Your task to perform on an android device: Open calendar and show me the first week of next month Image 0: 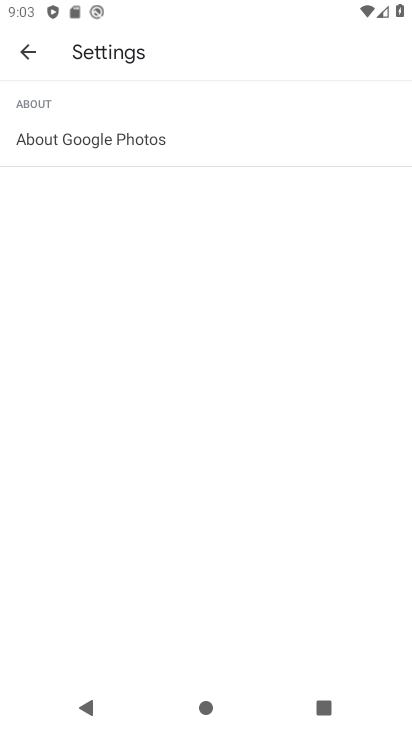
Step 0: press home button
Your task to perform on an android device: Open calendar and show me the first week of next month Image 1: 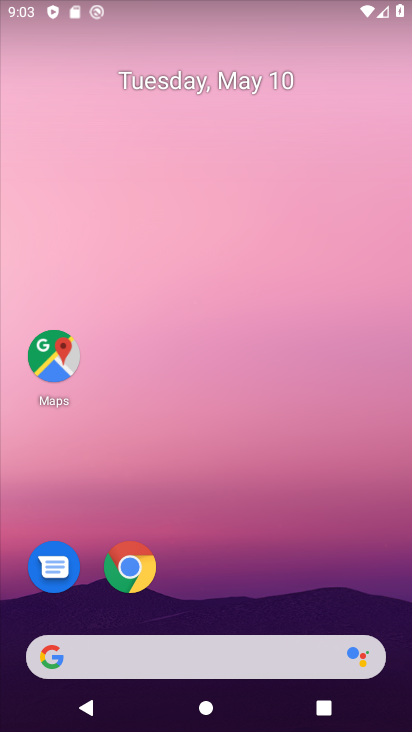
Step 1: drag from (37, 581) to (193, 193)
Your task to perform on an android device: Open calendar and show me the first week of next month Image 2: 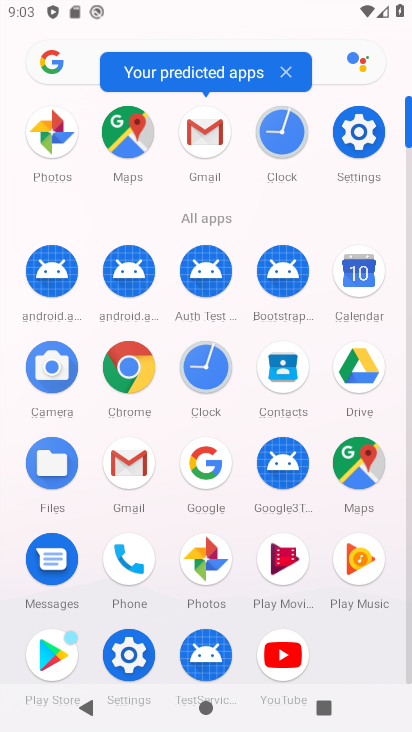
Step 2: click (358, 263)
Your task to perform on an android device: Open calendar and show me the first week of next month Image 3: 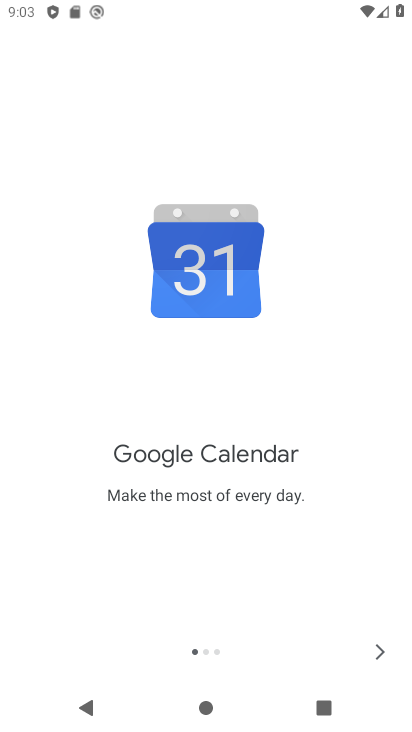
Step 3: click (382, 645)
Your task to perform on an android device: Open calendar and show me the first week of next month Image 4: 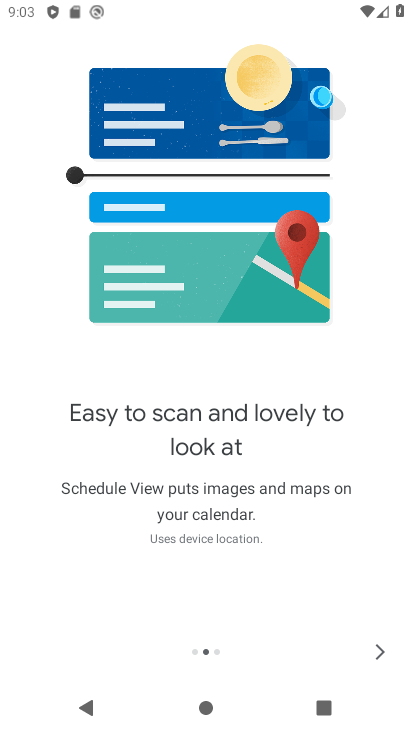
Step 4: click (382, 645)
Your task to perform on an android device: Open calendar and show me the first week of next month Image 5: 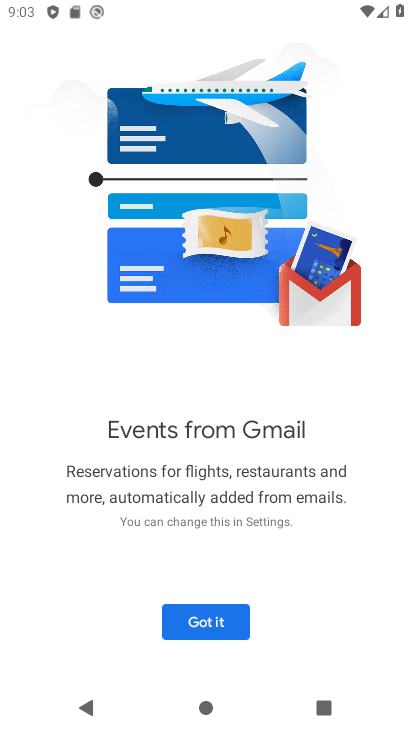
Step 5: click (189, 618)
Your task to perform on an android device: Open calendar and show me the first week of next month Image 6: 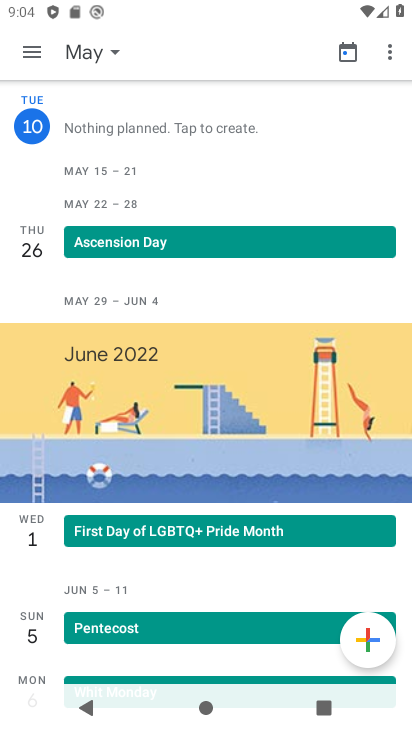
Step 6: click (80, 51)
Your task to perform on an android device: Open calendar and show me the first week of next month Image 7: 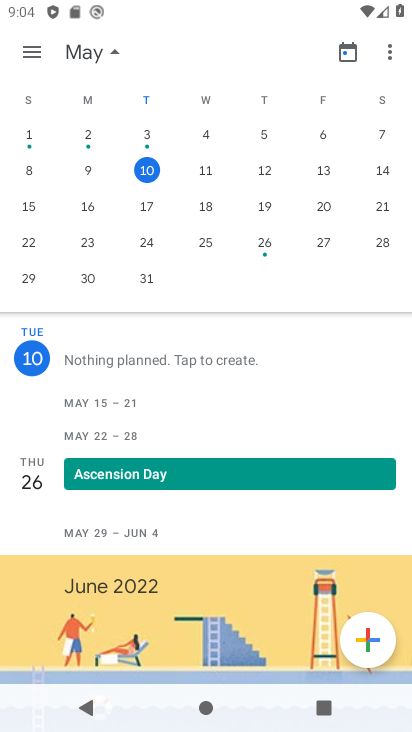
Step 7: drag from (302, 158) to (0, 150)
Your task to perform on an android device: Open calendar and show me the first week of next month Image 8: 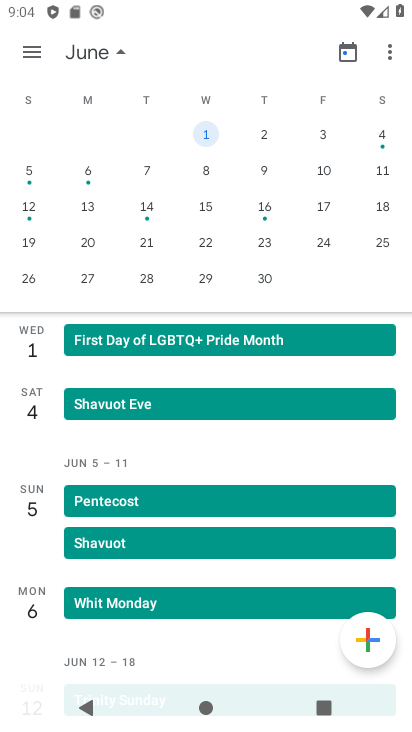
Step 8: click (263, 132)
Your task to perform on an android device: Open calendar and show me the first week of next month Image 9: 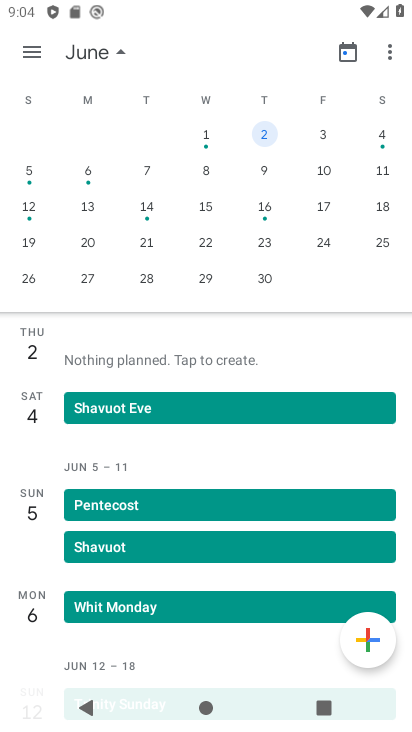
Step 9: click (321, 134)
Your task to perform on an android device: Open calendar and show me the first week of next month Image 10: 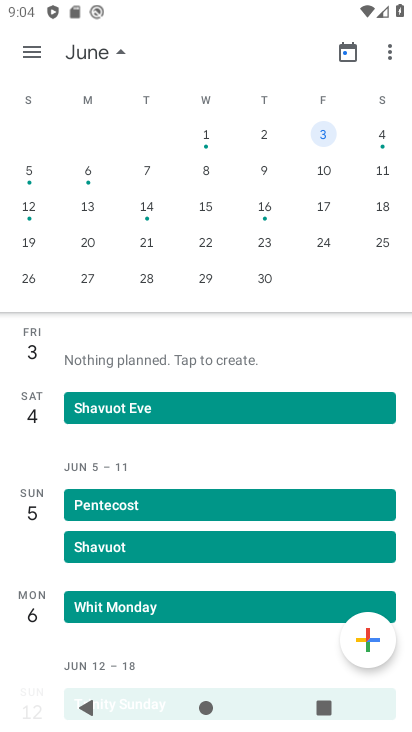
Step 10: click (386, 130)
Your task to perform on an android device: Open calendar and show me the first week of next month Image 11: 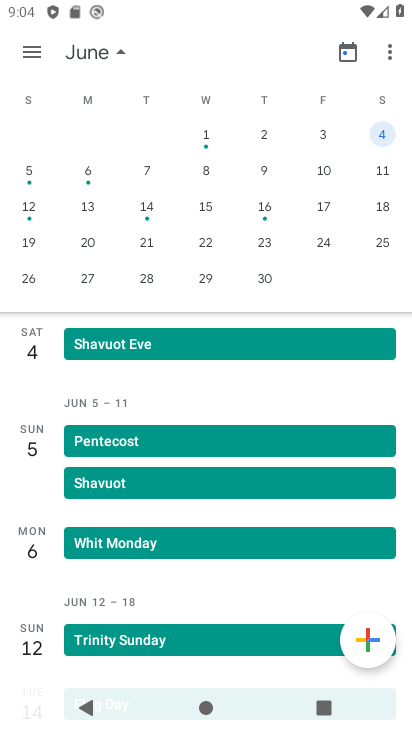
Step 11: task complete